Your task to perform on an android device: make emails show in primary in the gmail app Image 0: 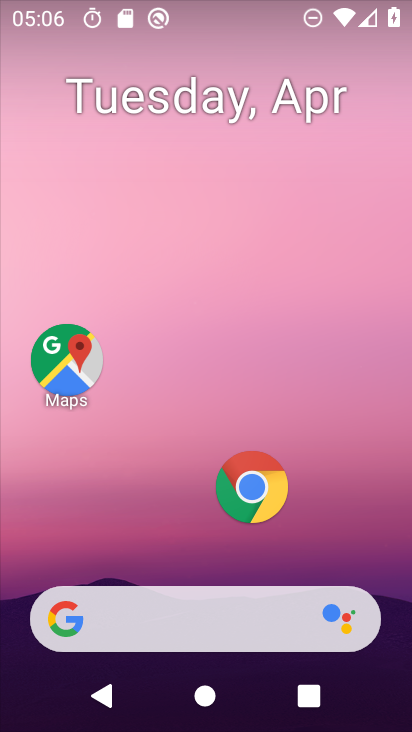
Step 0: drag from (193, 513) to (235, 141)
Your task to perform on an android device: make emails show in primary in the gmail app Image 1: 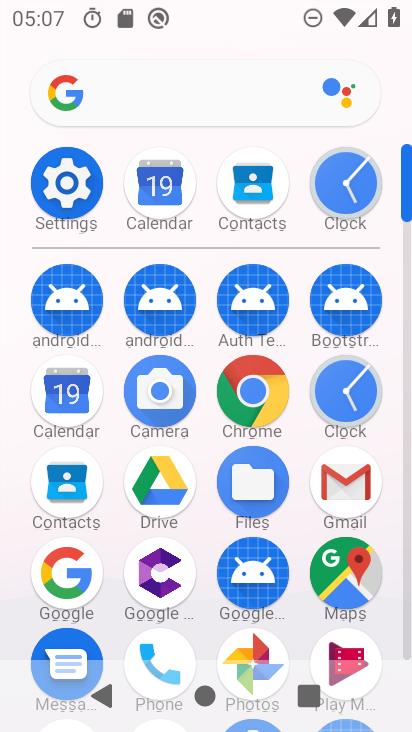
Step 1: click (338, 486)
Your task to perform on an android device: make emails show in primary in the gmail app Image 2: 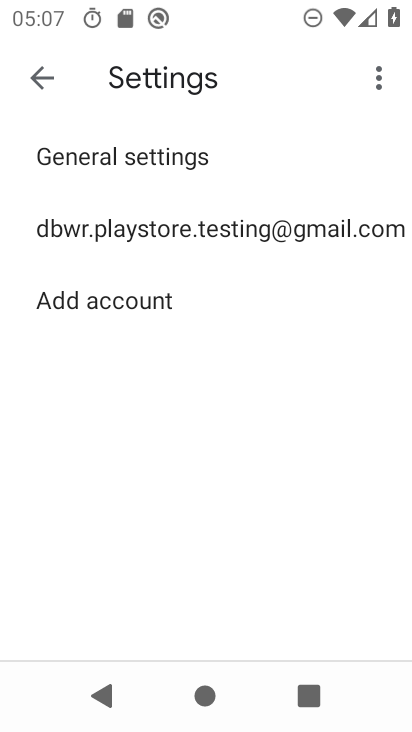
Step 2: click (44, 78)
Your task to perform on an android device: make emails show in primary in the gmail app Image 3: 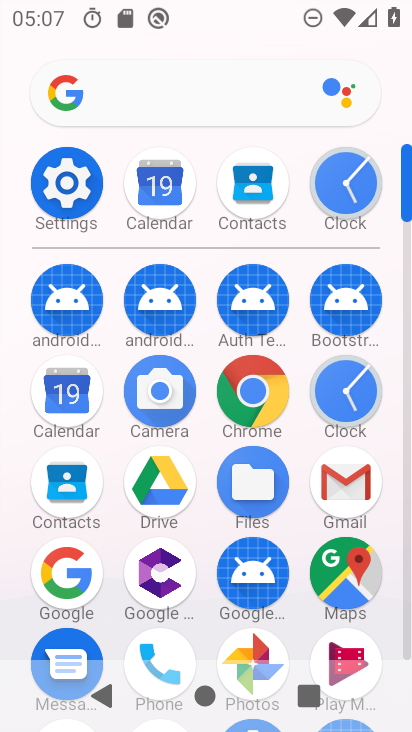
Step 3: click (369, 489)
Your task to perform on an android device: make emails show in primary in the gmail app Image 4: 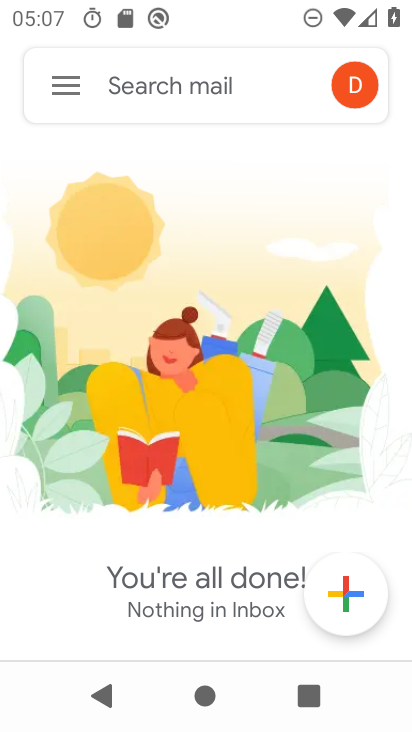
Step 4: click (56, 82)
Your task to perform on an android device: make emails show in primary in the gmail app Image 5: 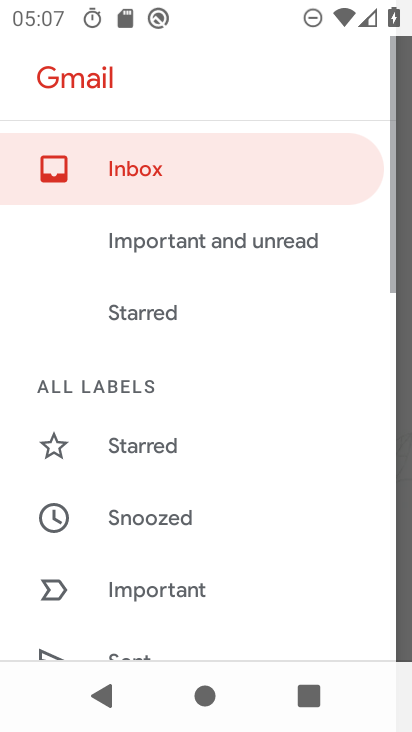
Step 5: drag from (157, 648) to (295, 159)
Your task to perform on an android device: make emails show in primary in the gmail app Image 6: 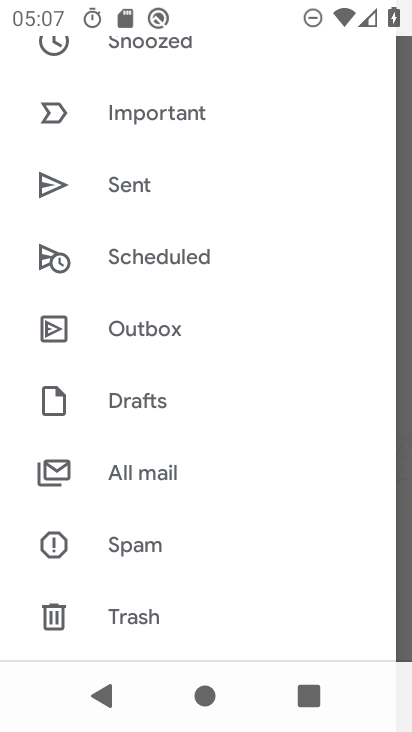
Step 6: drag from (160, 586) to (308, 77)
Your task to perform on an android device: make emails show in primary in the gmail app Image 7: 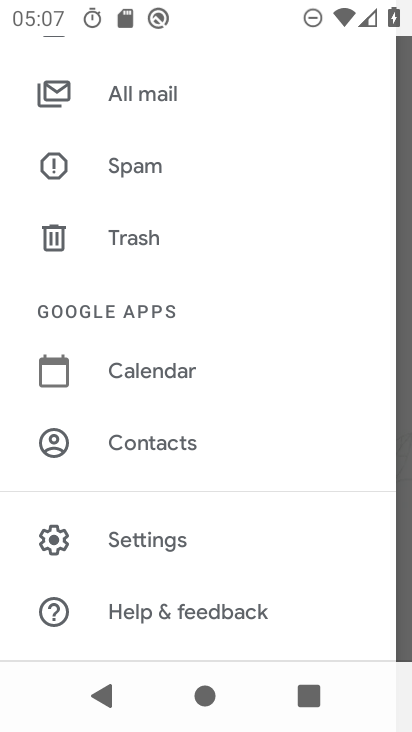
Step 7: click (174, 539)
Your task to perform on an android device: make emails show in primary in the gmail app Image 8: 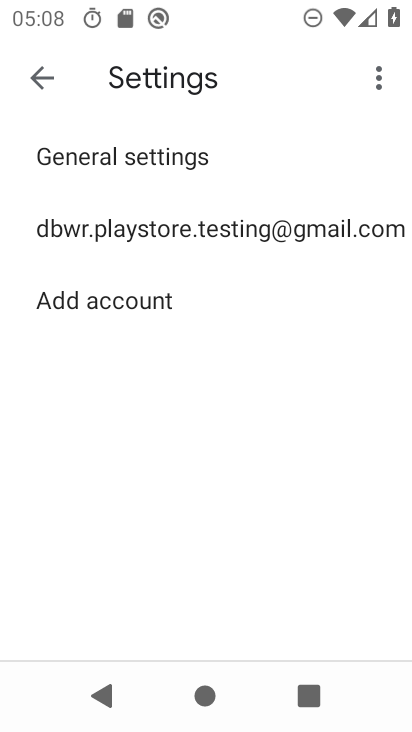
Step 8: click (202, 217)
Your task to perform on an android device: make emails show in primary in the gmail app Image 9: 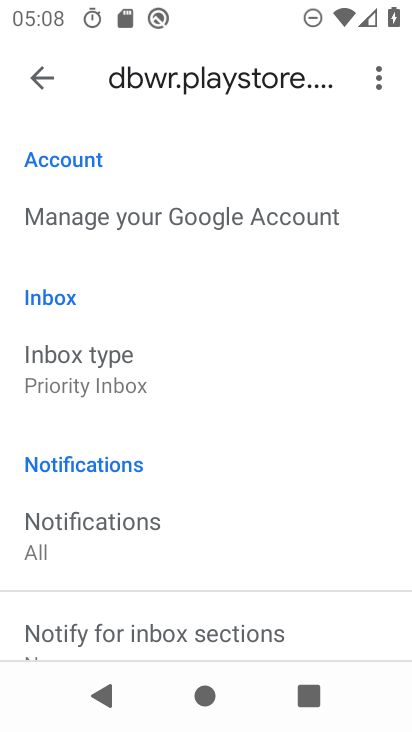
Step 9: task complete